Your task to perform on an android device: Set the phone to "Do not disturb". Image 0: 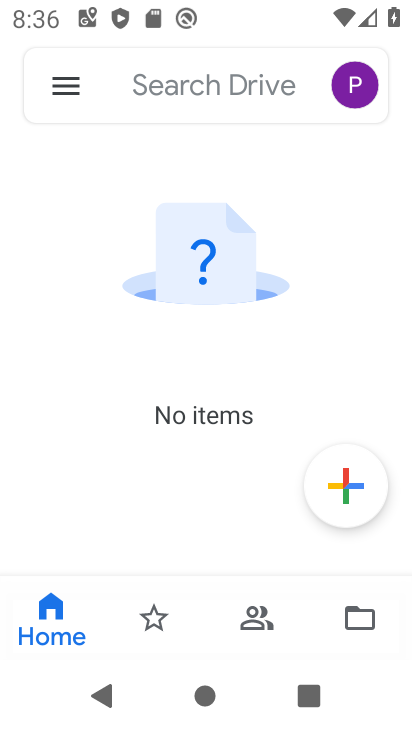
Step 0: press back button
Your task to perform on an android device: Set the phone to "Do not disturb". Image 1: 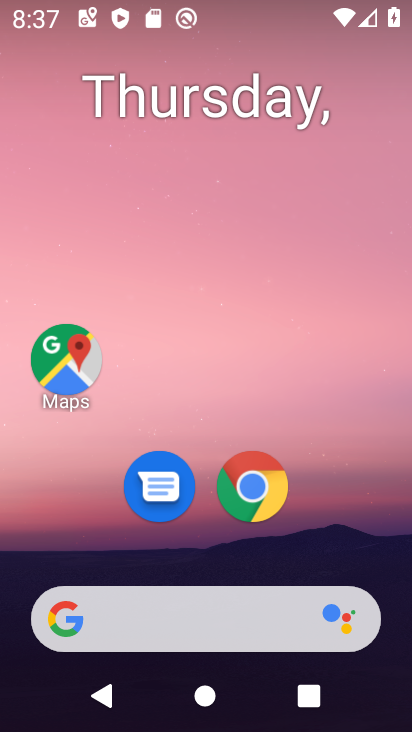
Step 1: drag from (196, 28) to (177, 626)
Your task to perform on an android device: Set the phone to "Do not disturb". Image 2: 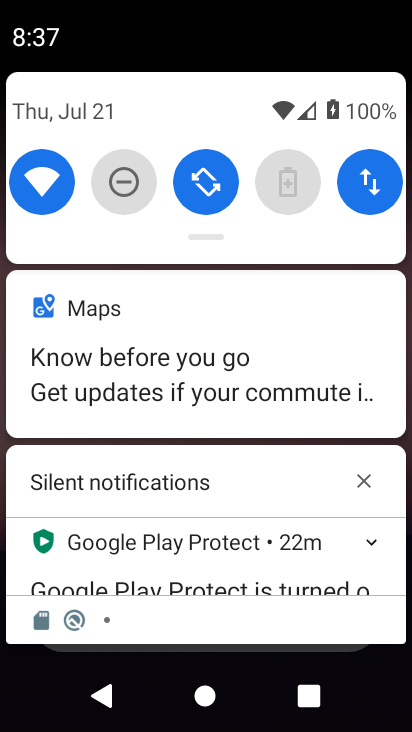
Step 2: click (128, 172)
Your task to perform on an android device: Set the phone to "Do not disturb". Image 3: 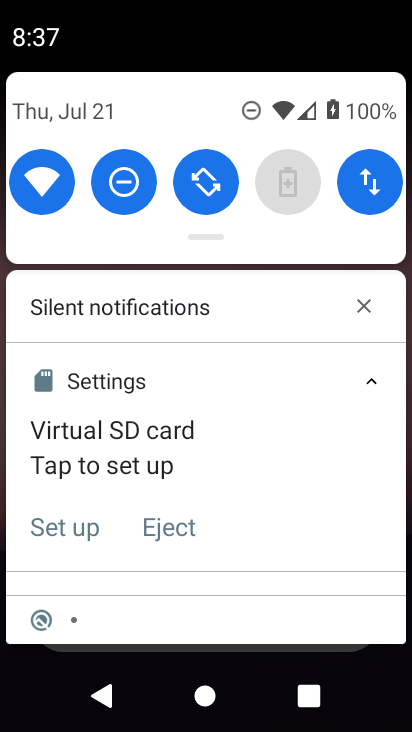
Step 3: task complete